Your task to perform on an android device: Go to Google maps Image 0: 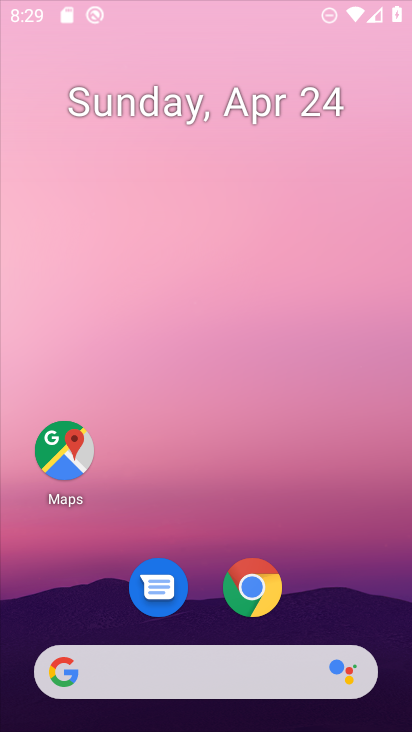
Step 0: drag from (379, 554) to (346, 65)
Your task to perform on an android device: Go to Google maps Image 1: 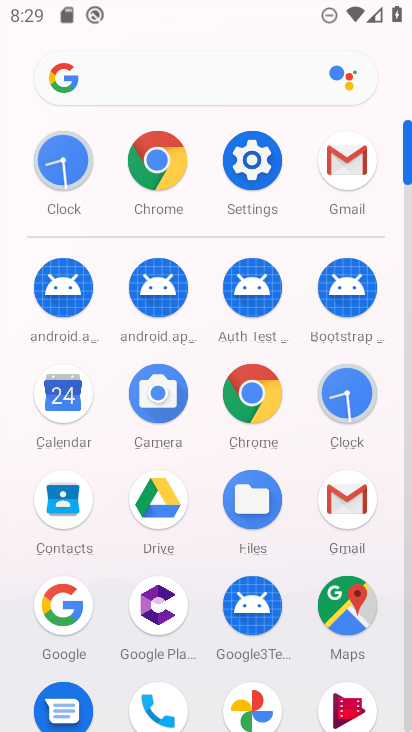
Step 1: click (351, 633)
Your task to perform on an android device: Go to Google maps Image 2: 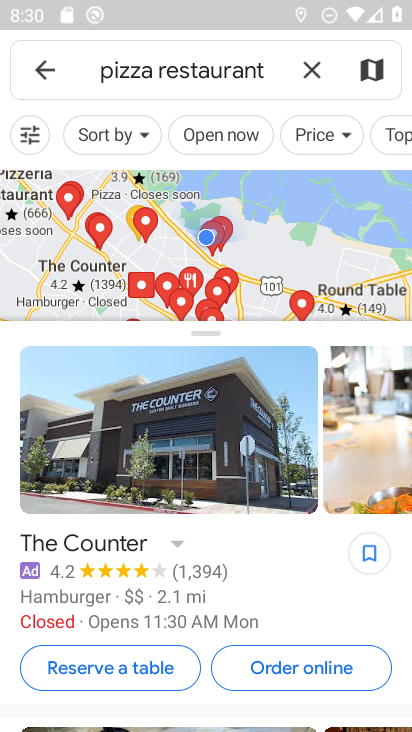
Step 2: task complete